Your task to perform on an android device: Turn on the flashlight Image 0: 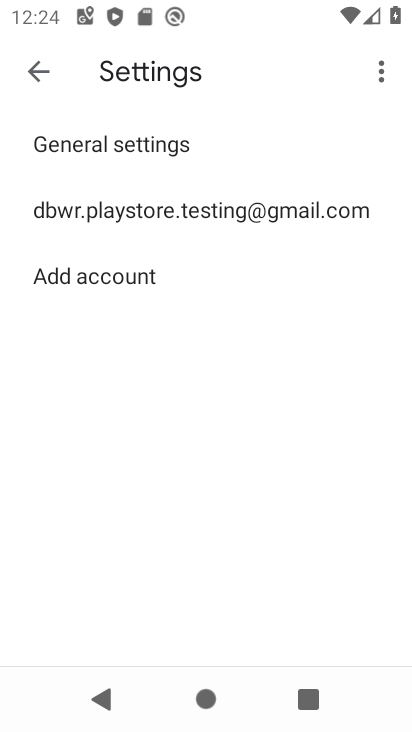
Step 0: press home button
Your task to perform on an android device: Turn on the flashlight Image 1: 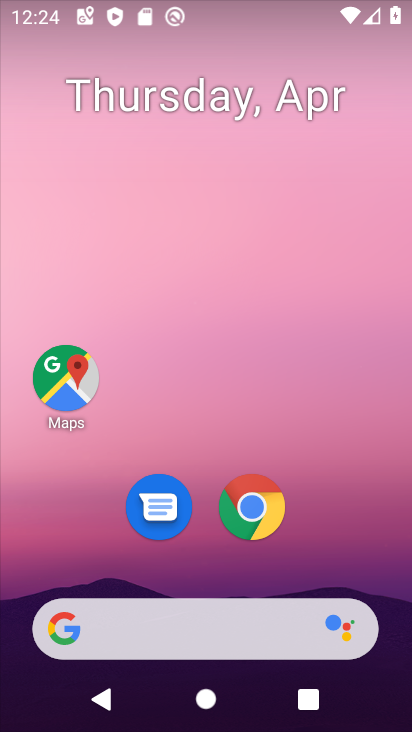
Step 1: drag from (202, 481) to (259, 34)
Your task to perform on an android device: Turn on the flashlight Image 2: 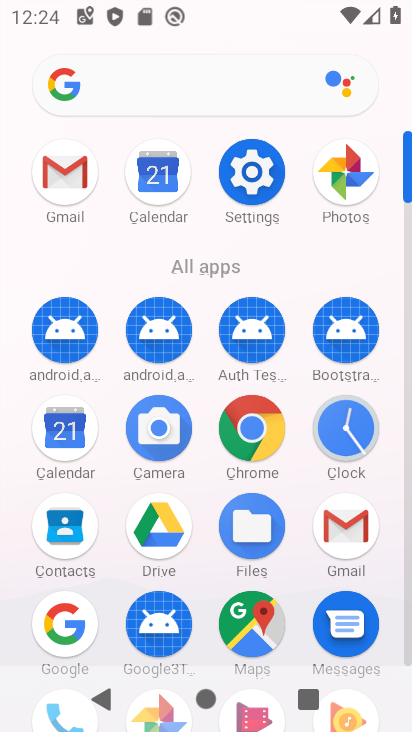
Step 2: click (254, 173)
Your task to perform on an android device: Turn on the flashlight Image 3: 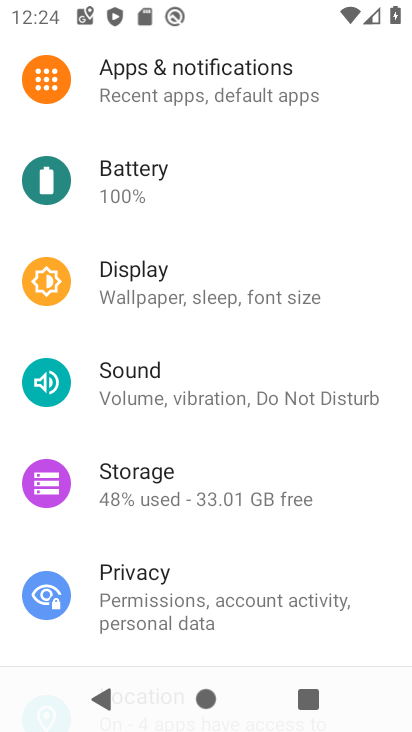
Step 3: drag from (214, 362) to (257, 249)
Your task to perform on an android device: Turn on the flashlight Image 4: 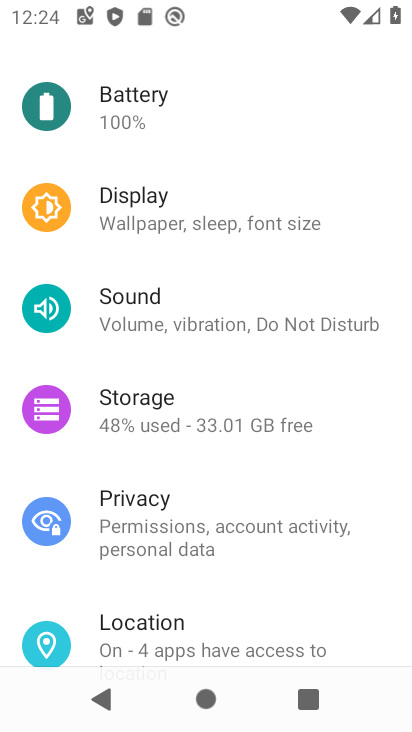
Step 4: click (261, 231)
Your task to perform on an android device: Turn on the flashlight Image 5: 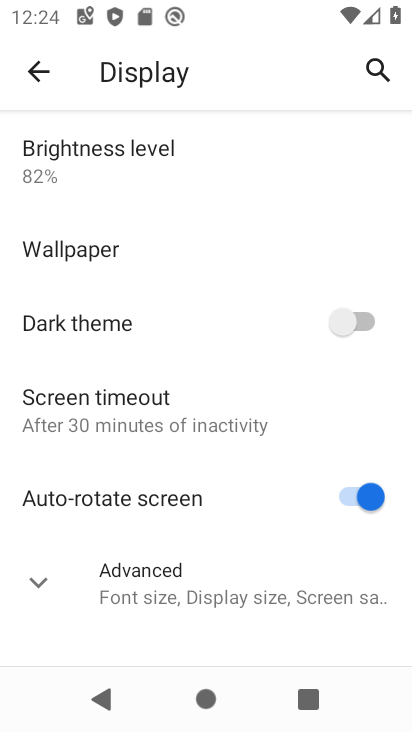
Step 5: click (211, 590)
Your task to perform on an android device: Turn on the flashlight Image 6: 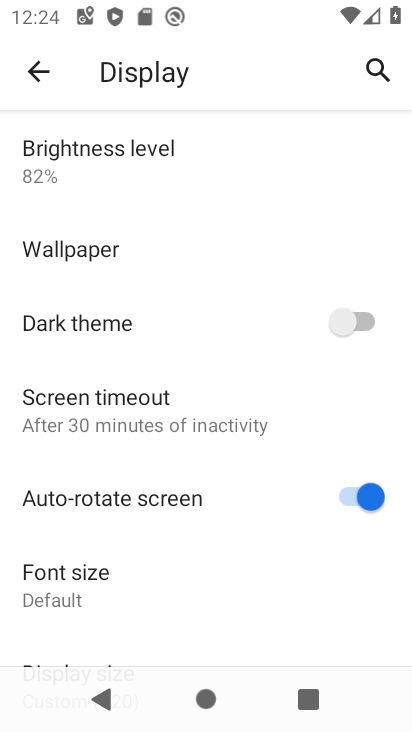
Step 6: drag from (178, 546) to (222, 410)
Your task to perform on an android device: Turn on the flashlight Image 7: 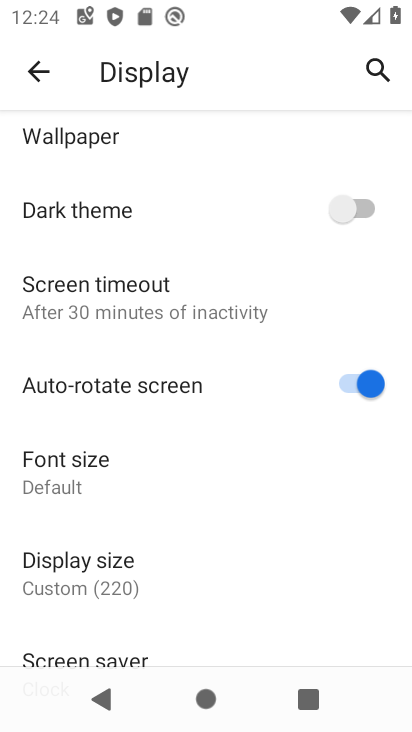
Step 7: drag from (145, 612) to (195, 498)
Your task to perform on an android device: Turn on the flashlight Image 8: 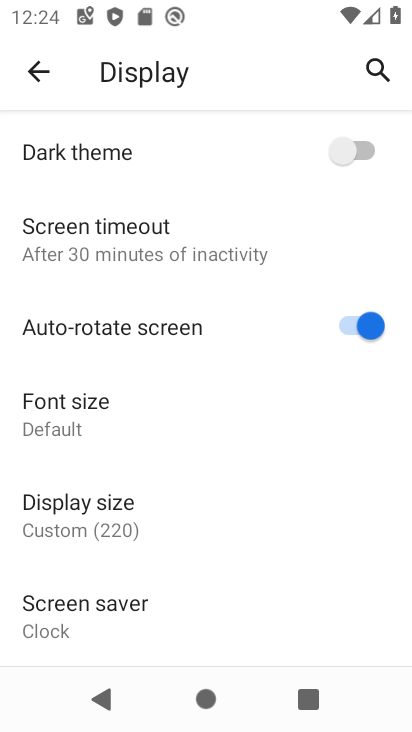
Step 8: press back button
Your task to perform on an android device: Turn on the flashlight Image 9: 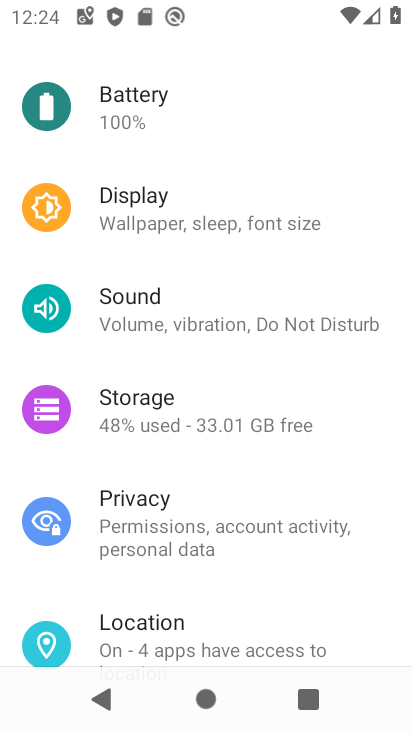
Step 9: drag from (235, 585) to (276, 457)
Your task to perform on an android device: Turn on the flashlight Image 10: 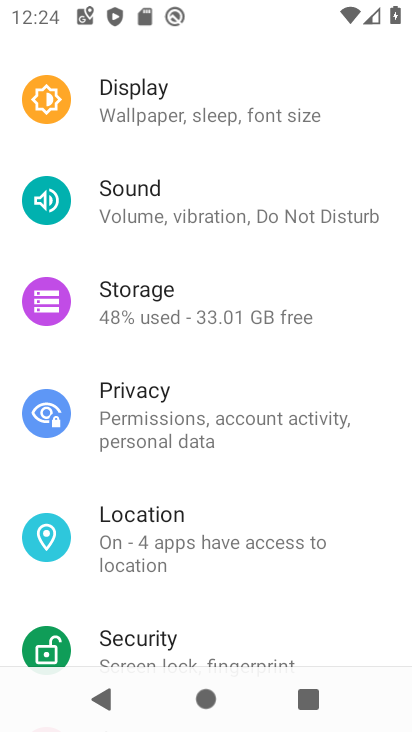
Step 10: drag from (258, 564) to (296, 471)
Your task to perform on an android device: Turn on the flashlight Image 11: 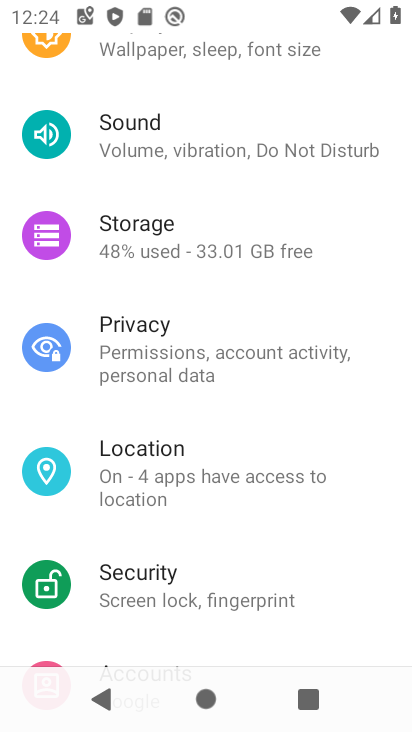
Step 11: drag from (251, 548) to (324, 441)
Your task to perform on an android device: Turn on the flashlight Image 12: 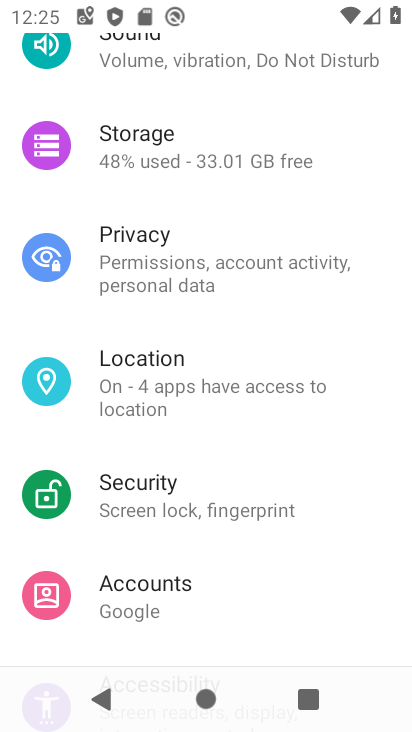
Step 12: drag from (211, 622) to (293, 455)
Your task to perform on an android device: Turn on the flashlight Image 13: 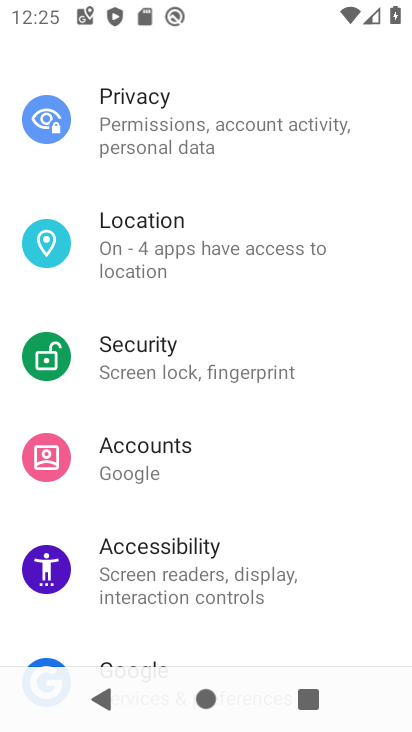
Step 13: drag from (242, 518) to (276, 409)
Your task to perform on an android device: Turn on the flashlight Image 14: 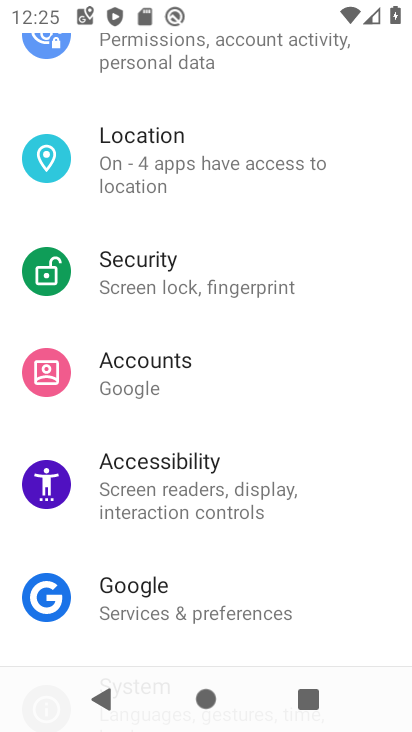
Step 14: click (177, 475)
Your task to perform on an android device: Turn on the flashlight Image 15: 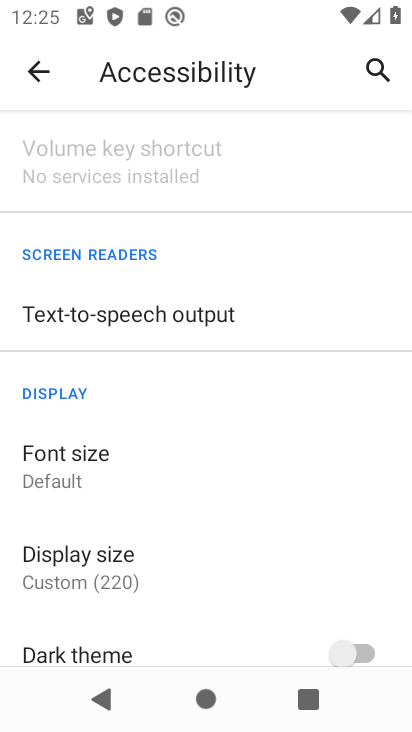
Step 15: task complete